Your task to perform on an android device: open chrome privacy settings Image 0: 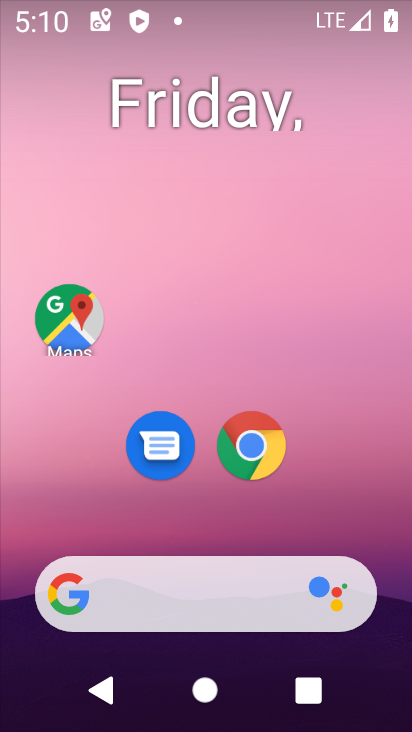
Step 0: click (266, 460)
Your task to perform on an android device: open chrome privacy settings Image 1: 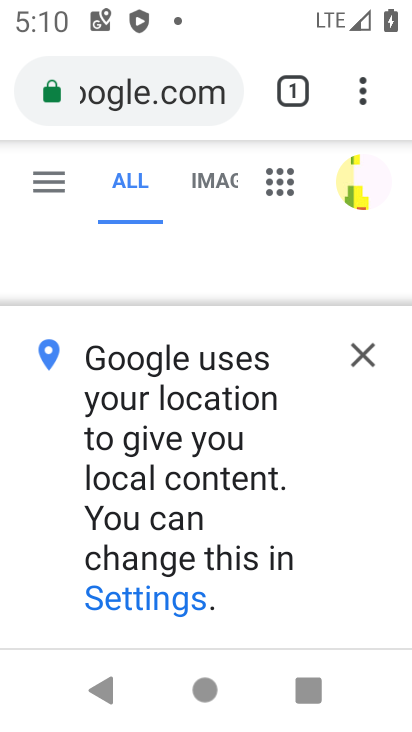
Step 1: click (379, 96)
Your task to perform on an android device: open chrome privacy settings Image 2: 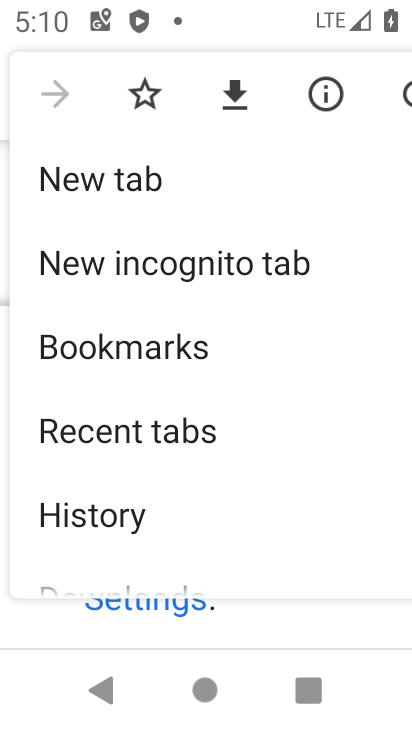
Step 2: drag from (181, 533) to (250, 230)
Your task to perform on an android device: open chrome privacy settings Image 3: 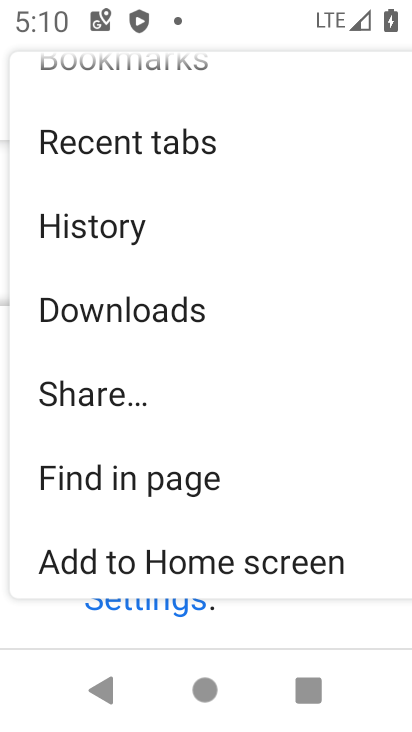
Step 3: drag from (187, 536) to (253, 252)
Your task to perform on an android device: open chrome privacy settings Image 4: 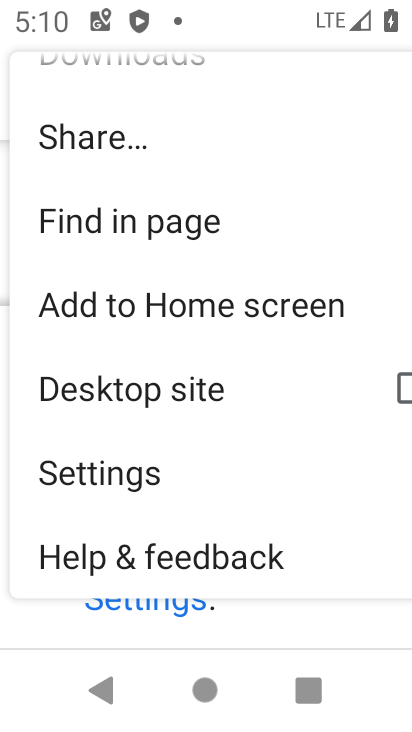
Step 4: click (207, 447)
Your task to perform on an android device: open chrome privacy settings Image 5: 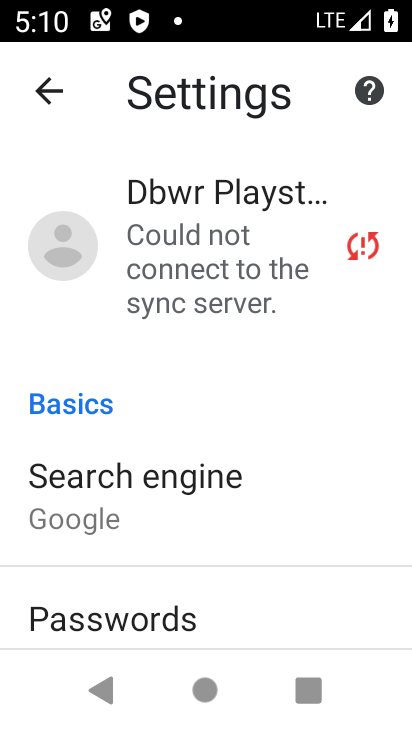
Step 5: drag from (193, 553) to (250, 232)
Your task to perform on an android device: open chrome privacy settings Image 6: 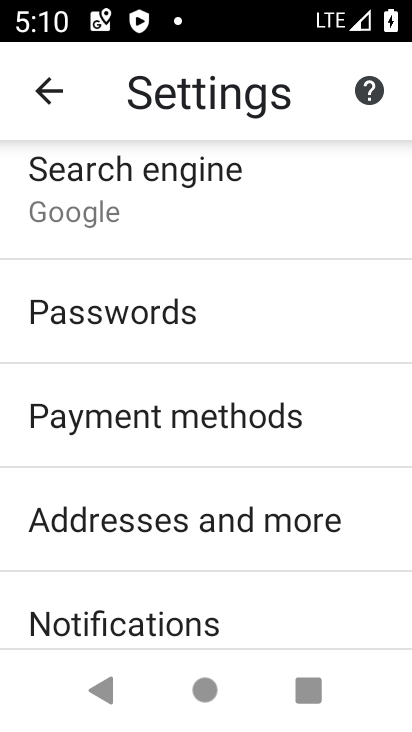
Step 6: drag from (173, 630) to (236, 323)
Your task to perform on an android device: open chrome privacy settings Image 7: 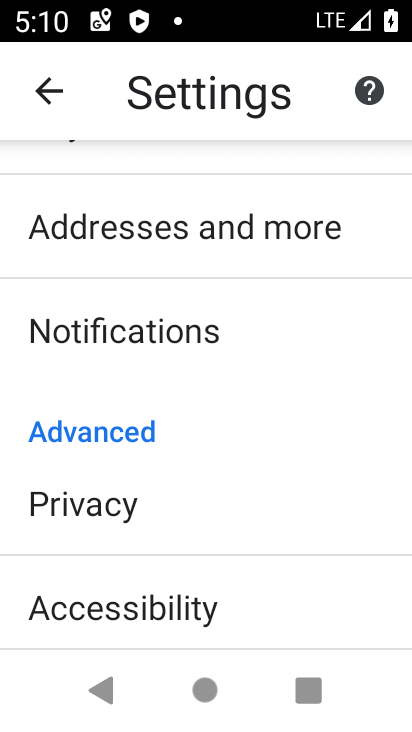
Step 7: click (224, 506)
Your task to perform on an android device: open chrome privacy settings Image 8: 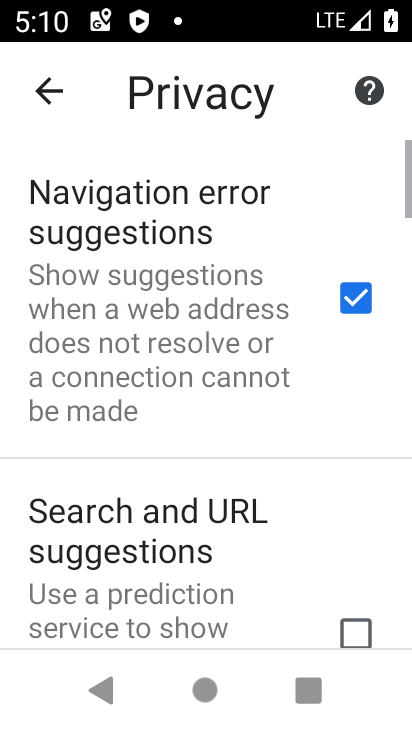
Step 8: task complete